Your task to perform on an android device: How big is a giraffe? Image 0: 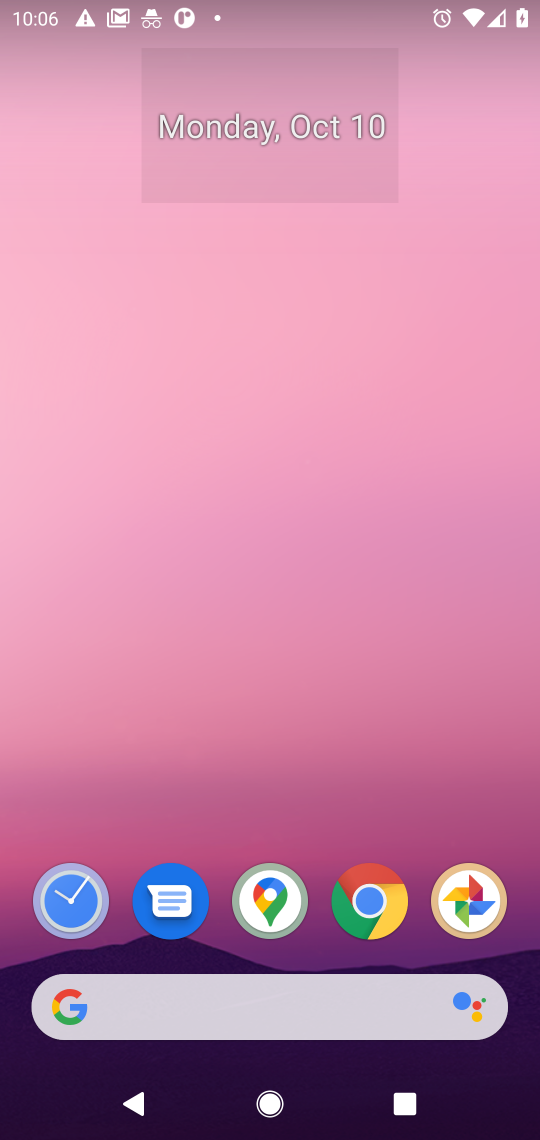
Step 0: press home button
Your task to perform on an android device: How big is a giraffe? Image 1: 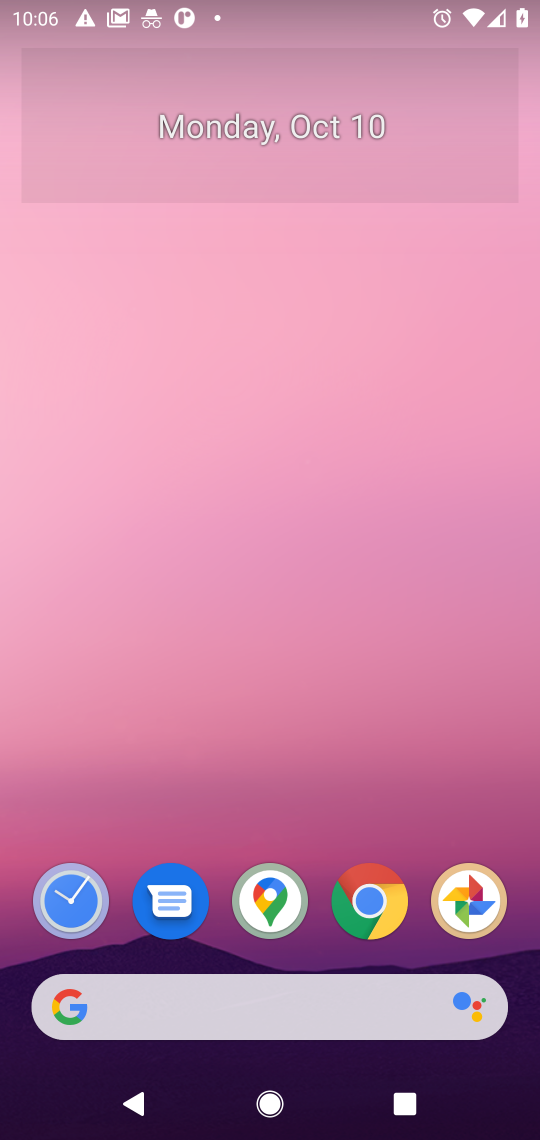
Step 1: click (390, 1019)
Your task to perform on an android device: How big is a giraffe? Image 2: 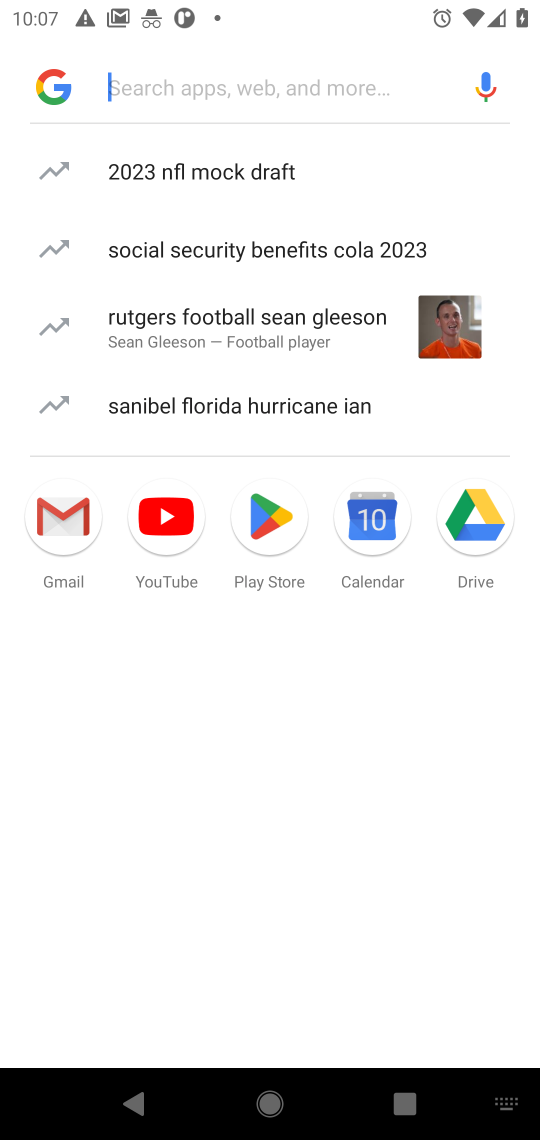
Step 2: press enter
Your task to perform on an android device: How big is a giraffe? Image 3: 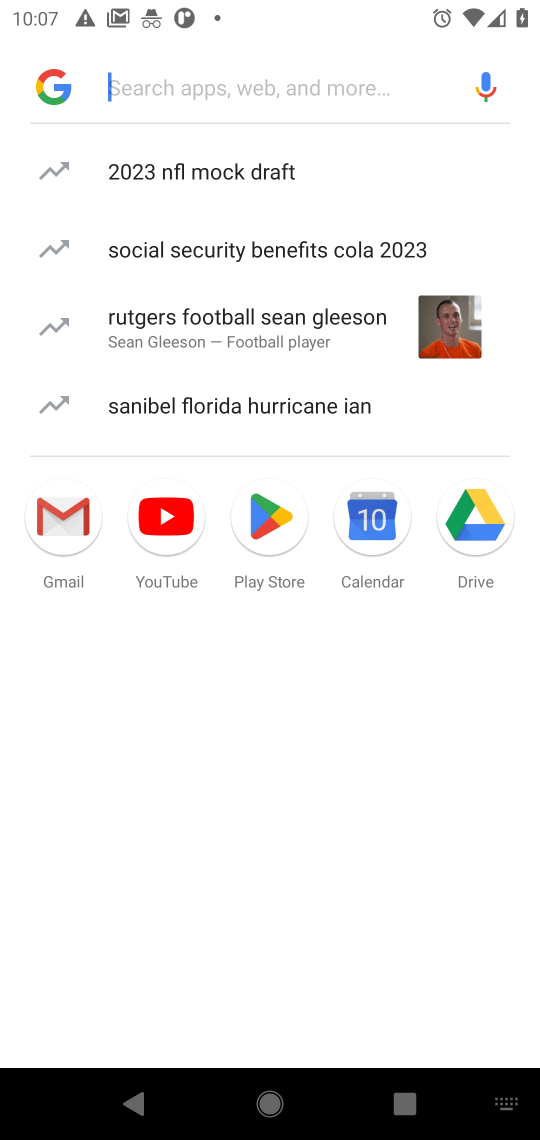
Step 3: type "How big is a giraffe"
Your task to perform on an android device: How big is a giraffe? Image 4: 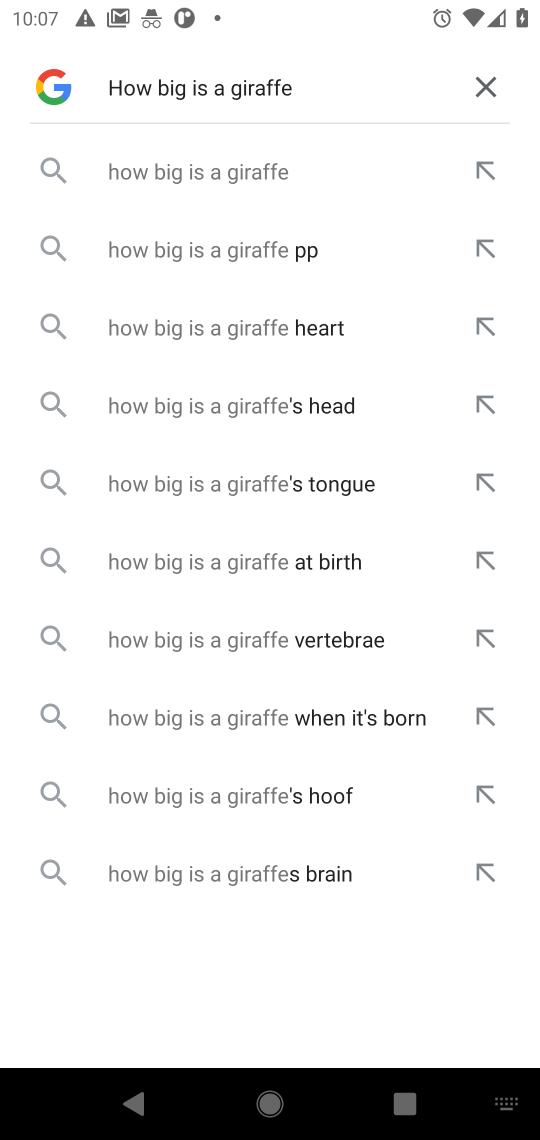
Step 4: press enter
Your task to perform on an android device: How big is a giraffe? Image 5: 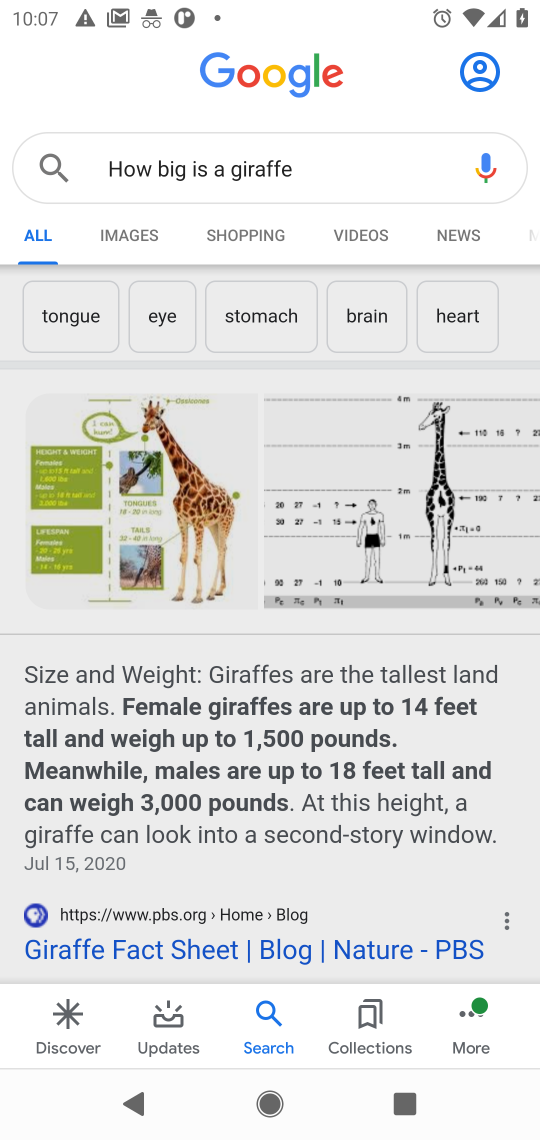
Step 5: task complete